Your task to perform on an android device: open a bookmark in the chrome app Image 0: 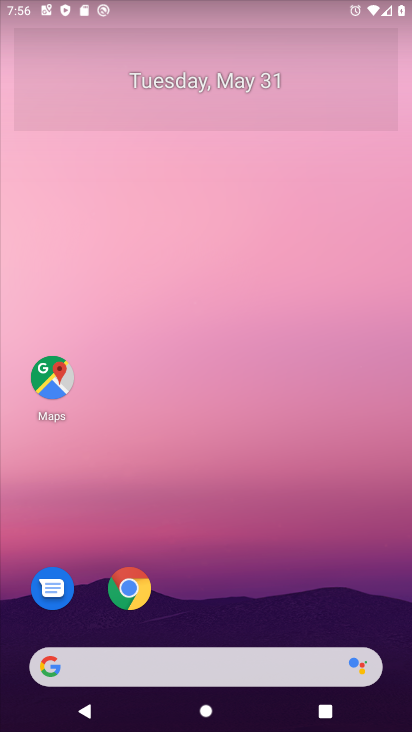
Step 0: click (136, 581)
Your task to perform on an android device: open a bookmark in the chrome app Image 1: 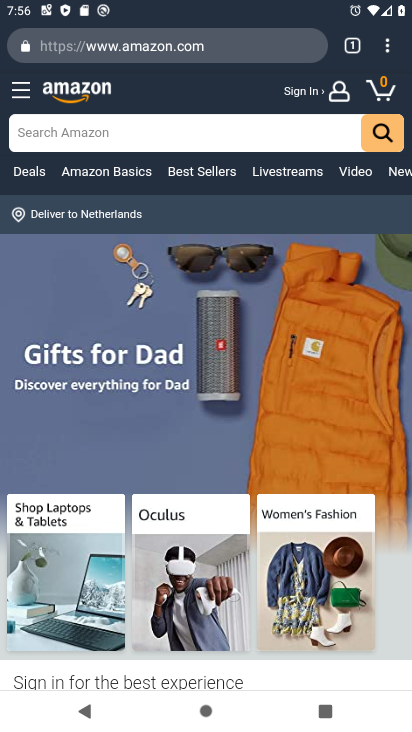
Step 1: click (385, 39)
Your task to perform on an android device: open a bookmark in the chrome app Image 2: 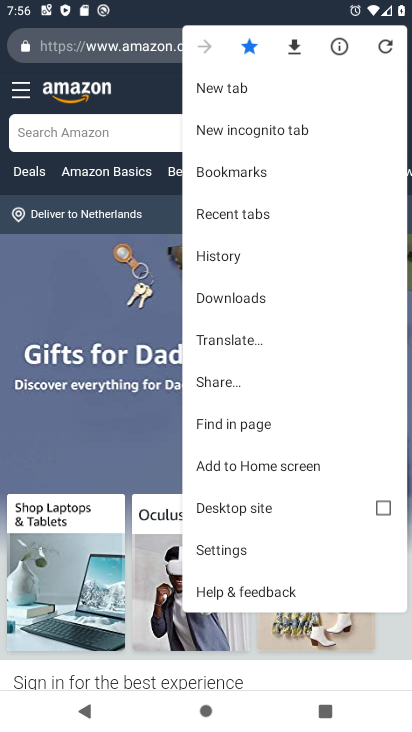
Step 2: click (257, 168)
Your task to perform on an android device: open a bookmark in the chrome app Image 3: 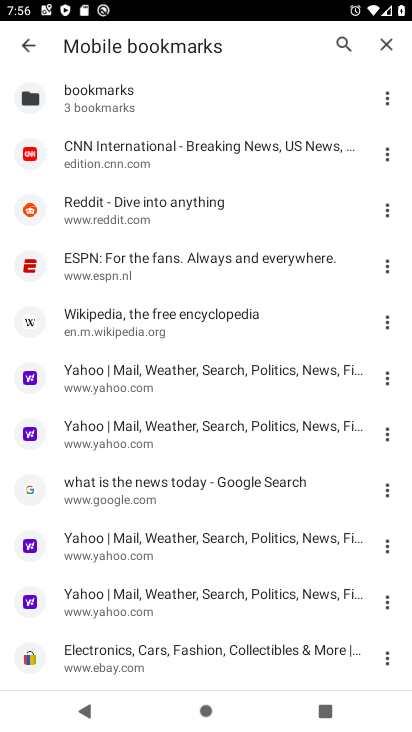
Step 3: click (108, 211)
Your task to perform on an android device: open a bookmark in the chrome app Image 4: 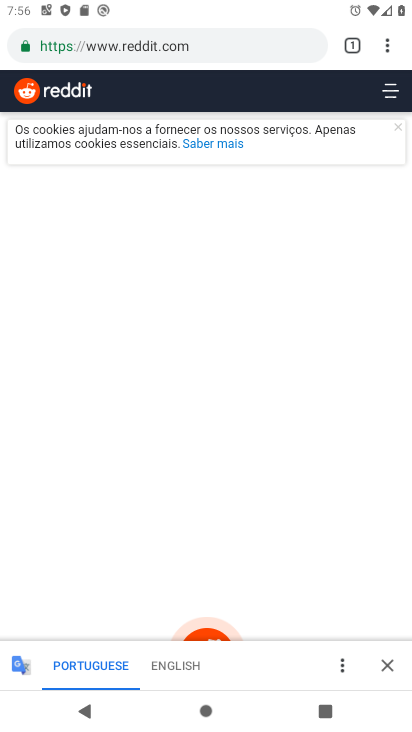
Step 4: task complete